Your task to perform on an android device: Open Yahoo.com Image 0: 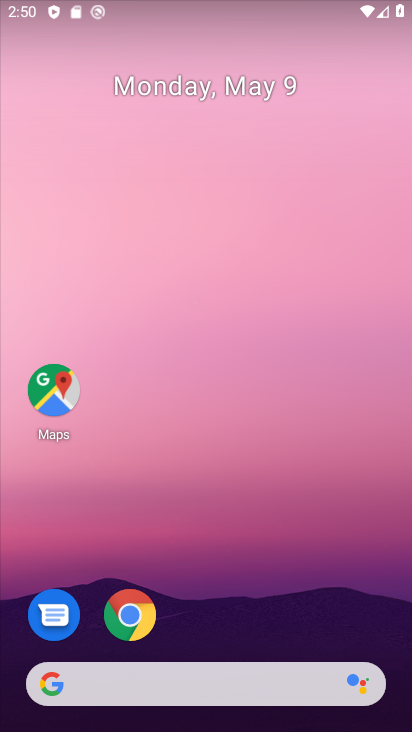
Step 0: drag from (258, 607) to (300, 155)
Your task to perform on an android device: Open Yahoo.com Image 1: 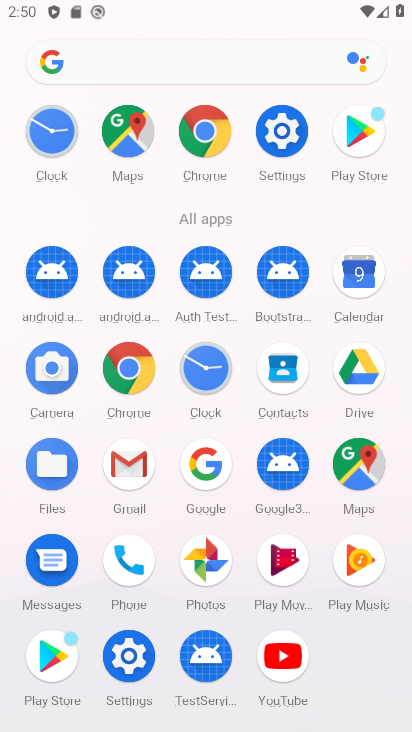
Step 1: click (190, 134)
Your task to perform on an android device: Open Yahoo.com Image 2: 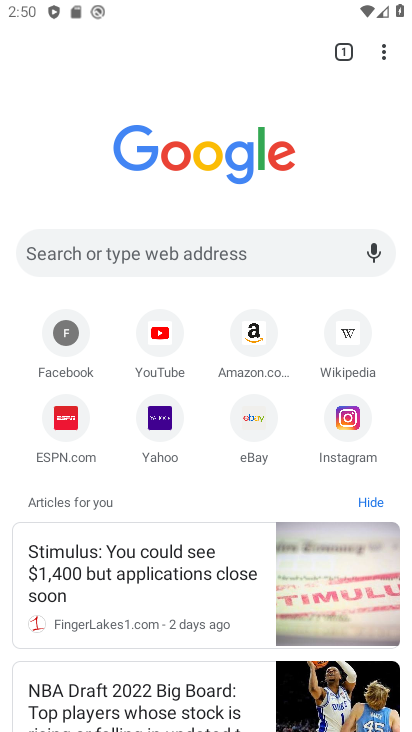
Step 2: click (152, 417)
Your task to perform on an android device: Open Yahoo.com Image 3: 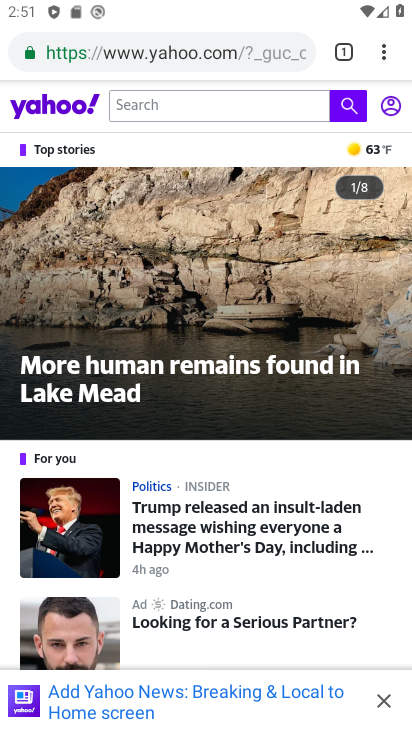
Step 3: task complete